Your task to perform on an android device: Open accessibility settings Image 0: 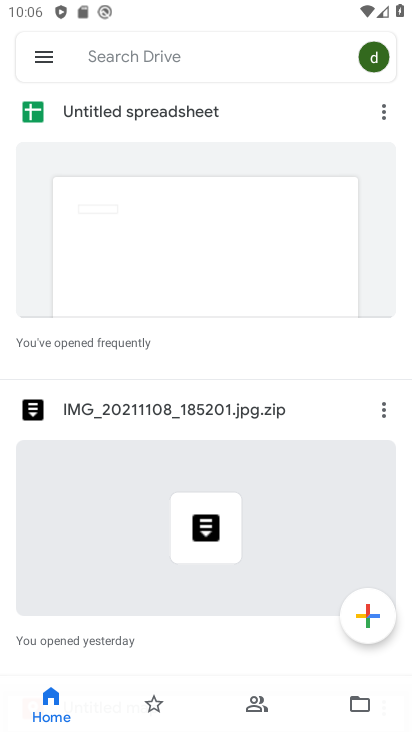
Step 0: press home button
Your task to perform on an android device: Open accessibility settings Image 1: 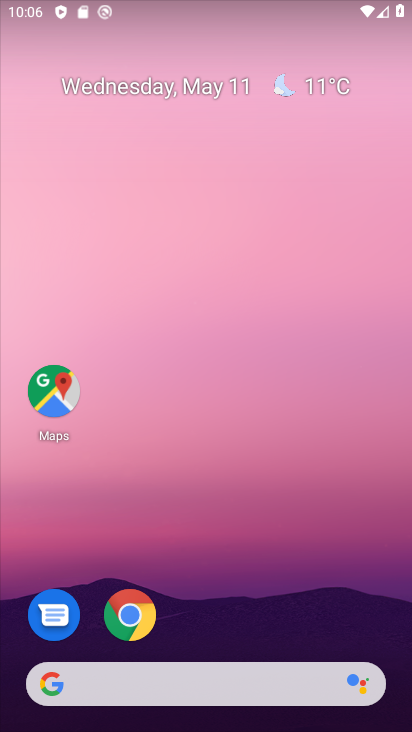
Step 1: drag from (307, 618) to (283, 73)
Your task to perform on an android device: Open accessibility settings Image 2: 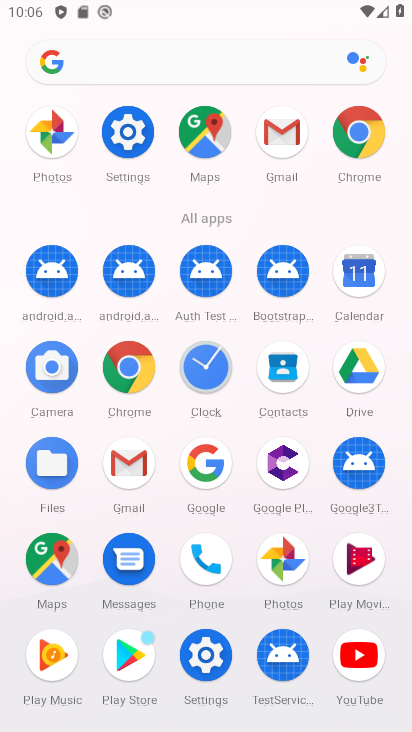
Step 2: click (120, 143)
Your task to perform on an android device: Open accessibility settings Image 3: 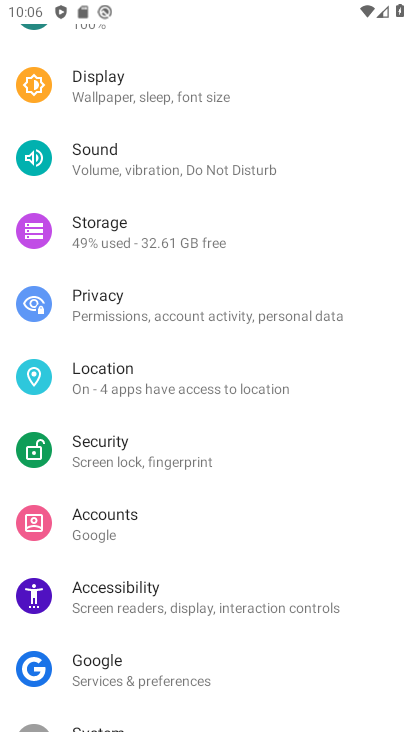
Step 3: drag from (166, 646) to (248, 74)
Your task to perform on an android device: Open accessibility settings Image 4: 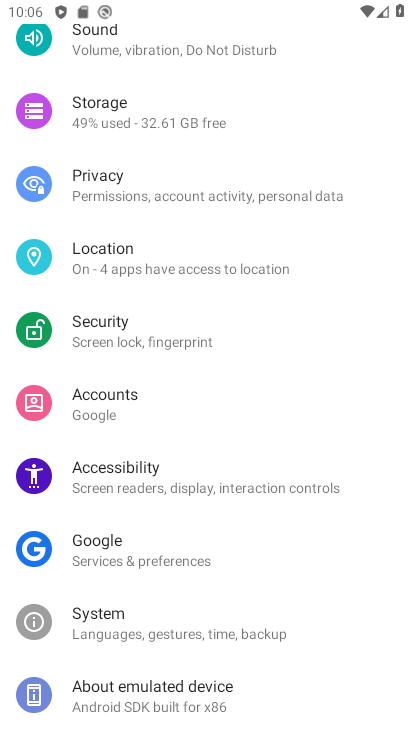
Step 4: click (157, 478)
Your task to perform on an android device: Open accessibility settings Image 5: 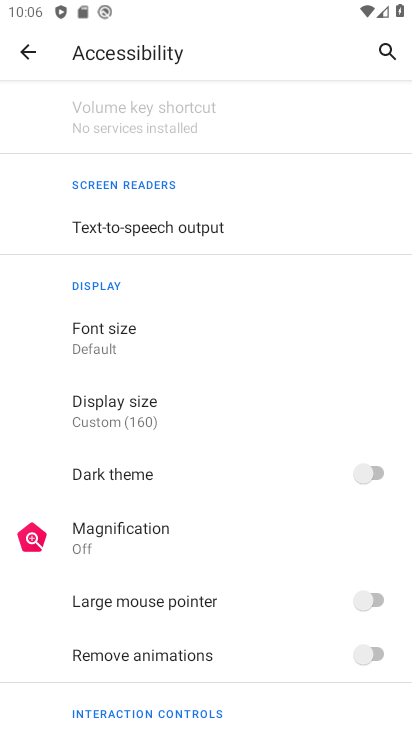
Step 5: task complete